Your task to perform on an android device: Search for "razer naga" on target, select the first entry, add it to the cart, then select checkout. Image 0: 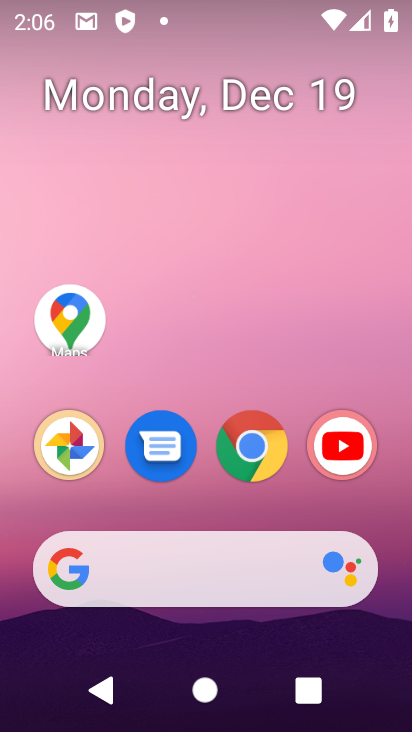
Step 0: click (260, 439)
Your task to perform on an android device: Search for "razer naga" on target, select the first entry, add it to the cart, then select checkout. Image 1: 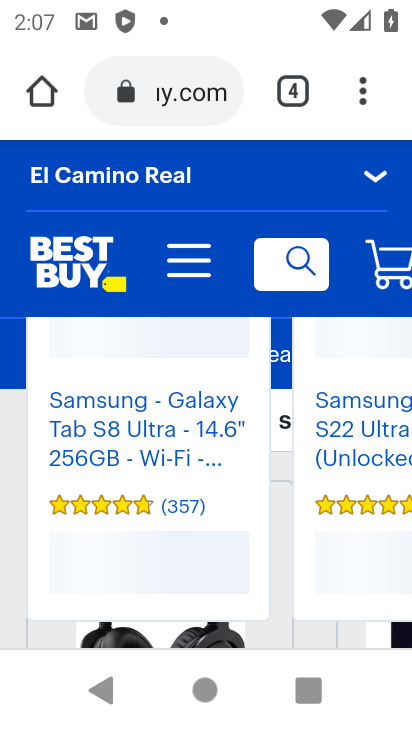
Step 1: click (176, 96)
Your task to perform on an android device: Search for "razer naga" on target, select the first entry, add it to the cart, then select checkout. Image 2: 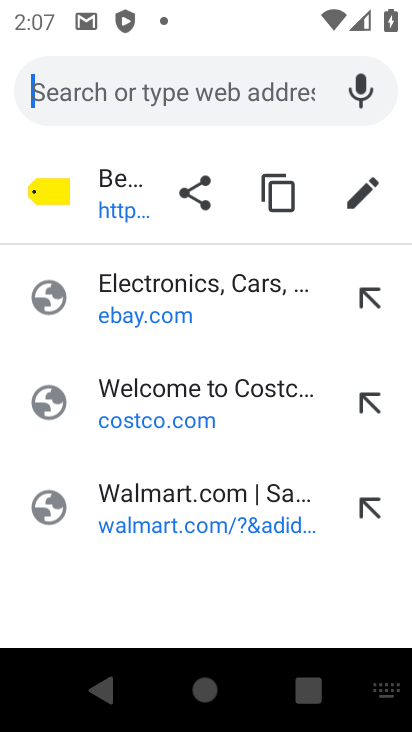
Step 2: type "target"
Your task to perform on an android device: Search for "razer naga" on target, select the first entry, add it to the cart, then select checkout. Image 3: 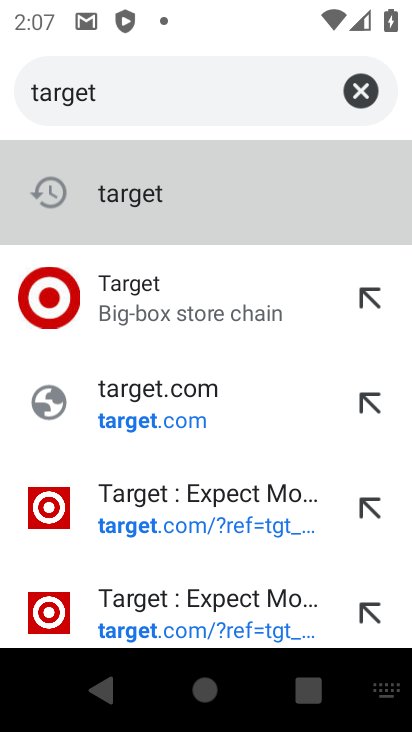
Step 3: click (174, 279)
Your task to perform on an android device: Search for "razer naga" on target, select the first entry, add it to the cart, then select checkout. Image 4: 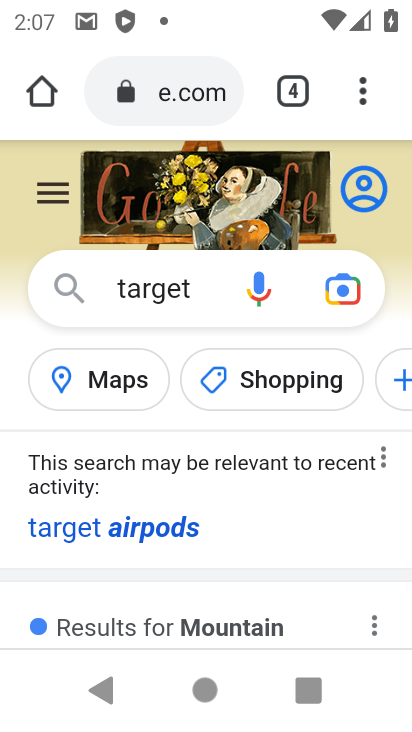
Step 4: task complete